Your task to perform on an android device: What is the news today? Image 0: 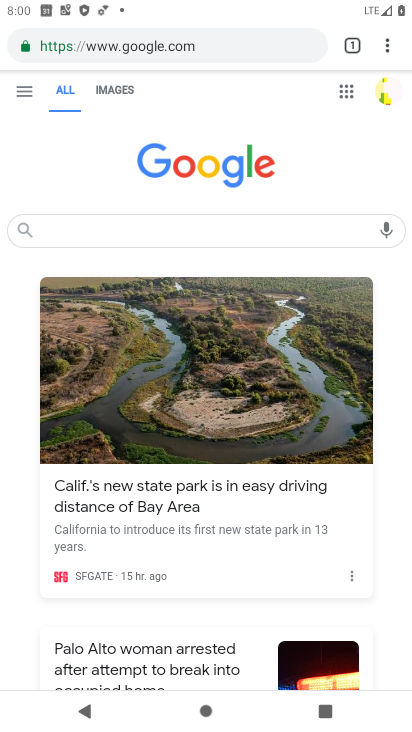
Step 0: click (150, 45)
Your task to perform on an android device: What is the news today? Image 1: 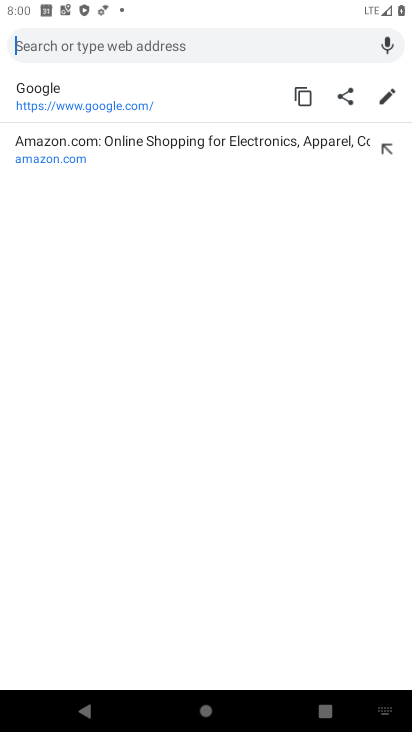
Step 1: type "What is the news today?"
Your task to perform on an android device: What is the news today? Image 2: 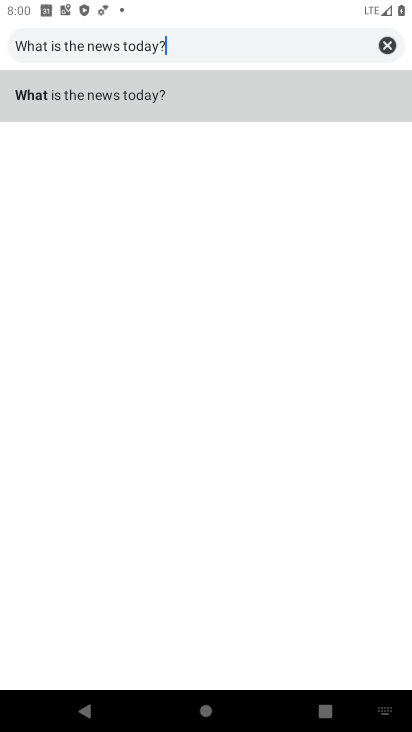
Step 2: type ""
Your task to perform on an android device: What is the news today? Image 3: 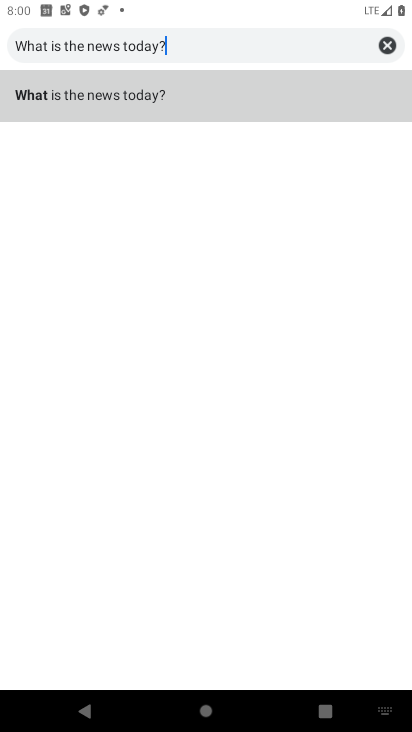
Step 3: click (172, 98)
Your task to perform on an android device: What is the news today? Image 4: 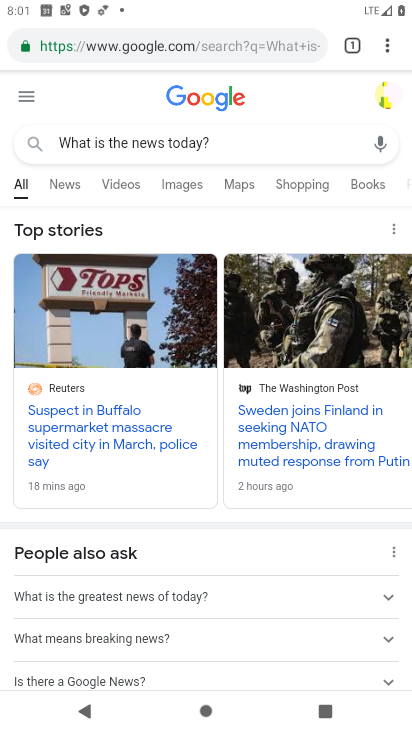
Step 4: task complete